Your task to perform on an android device: Nike Air Max 2020 shoes on Nike.com Image 0: 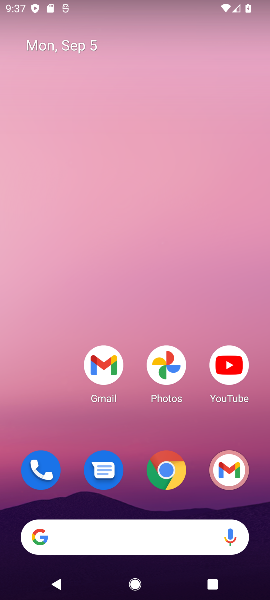
Step 0: click (139, 539)
Your task to perform on an android device: Nike Air Max 2020 shoes on Nike.com Image 1: 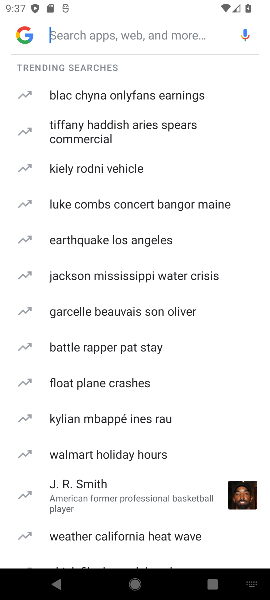
Step 1: type "nike.com"
Your task to perform on an android device: Nike Air Max 2020 shoes on Nike.com Image 2: 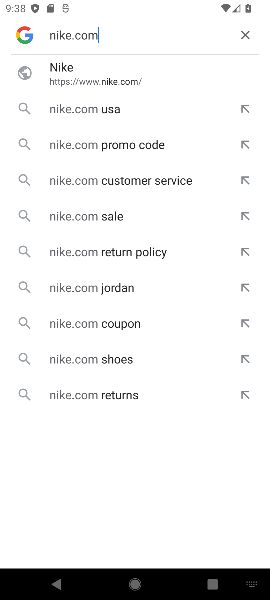
Step 2: click (61, 64)
Your task to perform on an android device: Nike Air Max 2020 shoes on Nike.com Image 3: 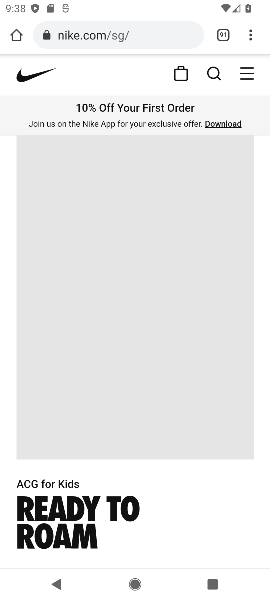
Step 3: click (212, 70)
Your task to perform on an android device: Nike Air Max 2020 shoes on Nike.com Image 4: 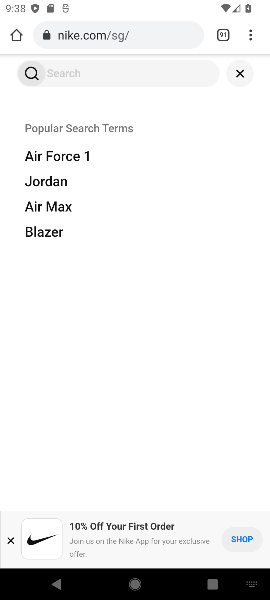
Step 4: type "Nike Air Max 2020 shoes"
Your task to perform on an android device: Nike Air Max 2020 shoes on Nike.com Image 5: 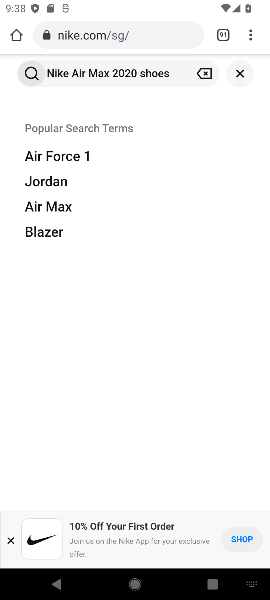
Step 5: click (29, 70)
Your task to perform on an android device: Nike Air Max 2020 shoes on Nike.com Image 6: 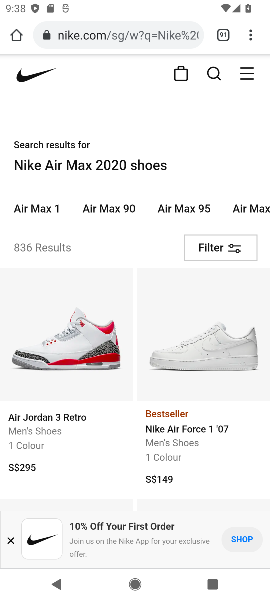
Step 6: task complete